Your task to perform on an android device: Go to wifi settings Image 0: 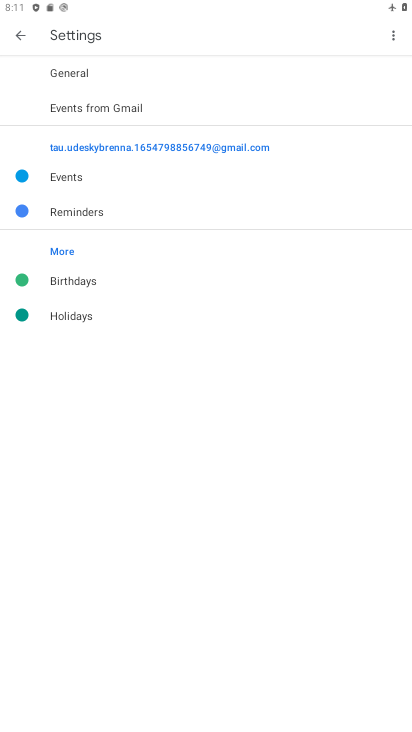
Step 0: press home button
Your task to perform on an android device: Go to wifi settings Image 1: 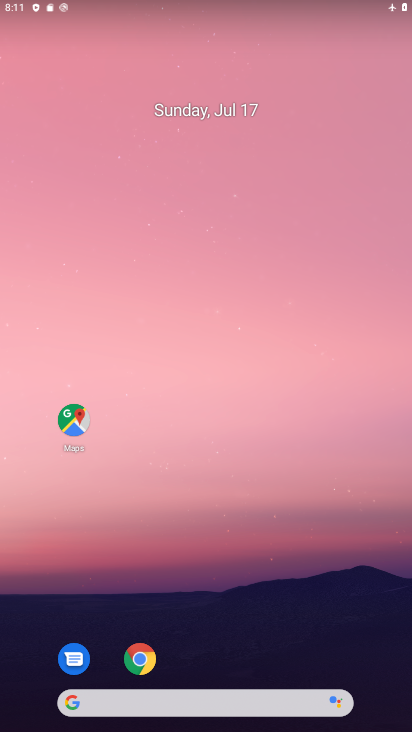
Step 1: drag from (179, 698) to (265, 179)
Your task to perform on an android device: Go to wifi settings Image 2: 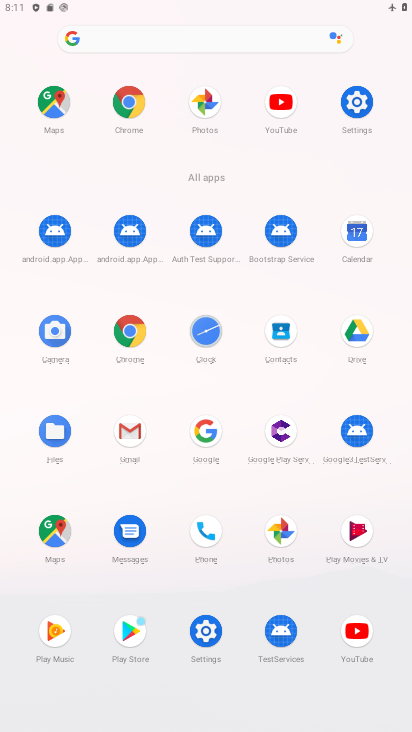
Step 2: click (357, 103)
Your task to perform on an android device: Go to wifi settings Image 3: 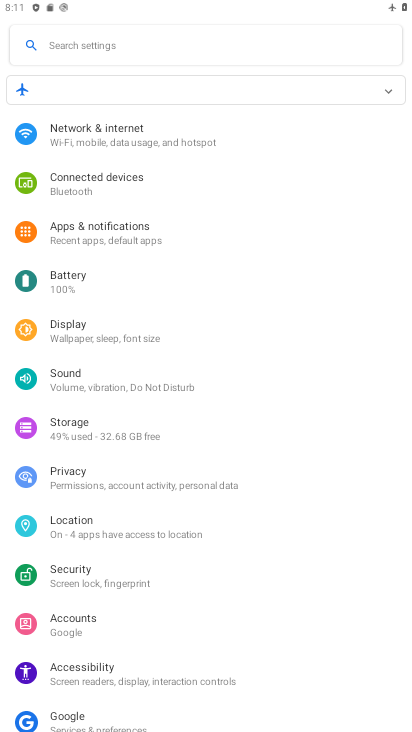
Step 3: click (210, 146)
Your task to perform on an android device: Go to wifi settings Image 4: 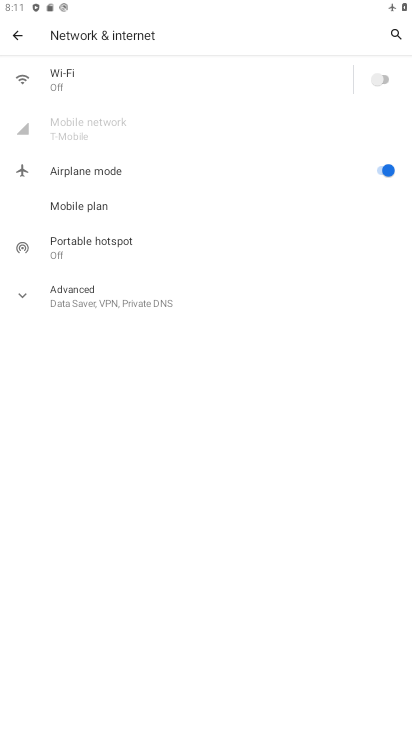
Step 4: click (66, 80)
Your task to perform on an android device: Go to wifi settings Image 5: 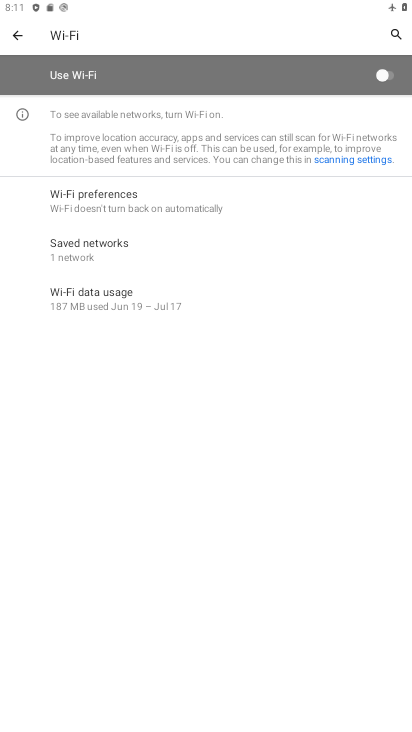
Step 5: click (382, 85)
Your task to perform on an android device: Go to wifi settings Image 6: 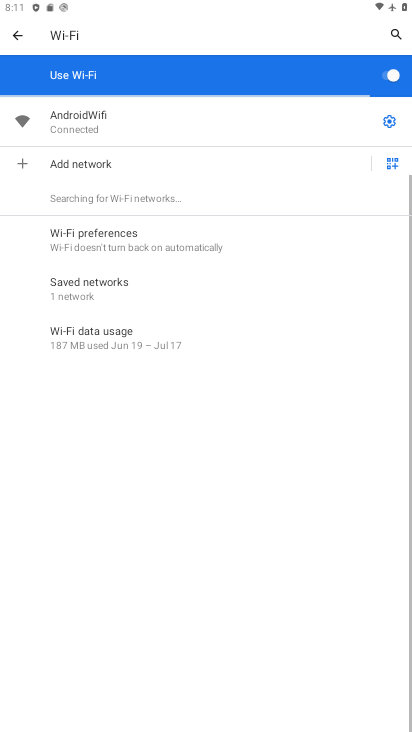
Step 6: click (389, 121)
Your task to perform on an android device: Go to wifi settings Image 7: 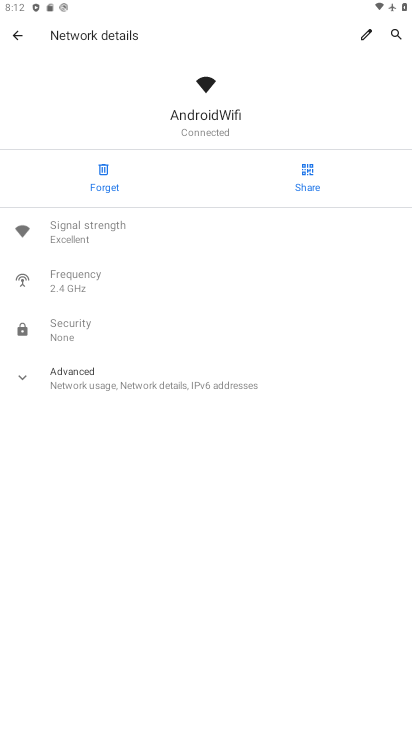
Step 7: task complete